Your task to perform on an android device: Open Google Chrome Image 0: 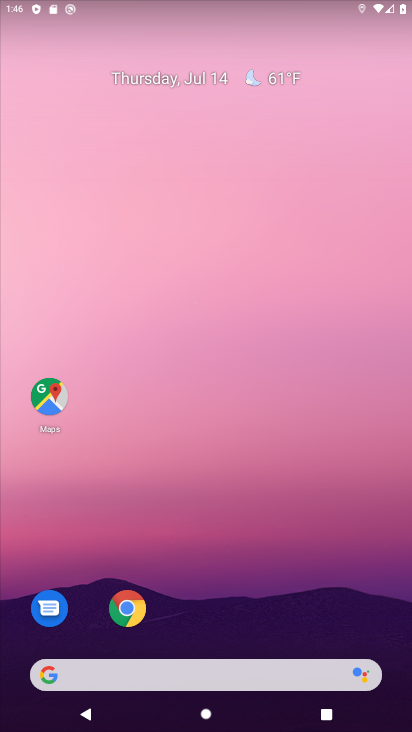
Step 0: click (130, 606)
Your task to perform on an android device: Open Google Chrome Image 1: 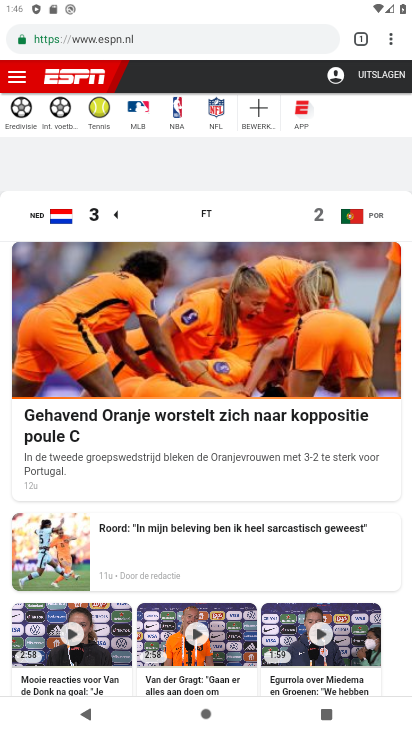
Step 1: task complete